Your task to perform on an android device: What's on my calendar today? Image 0: 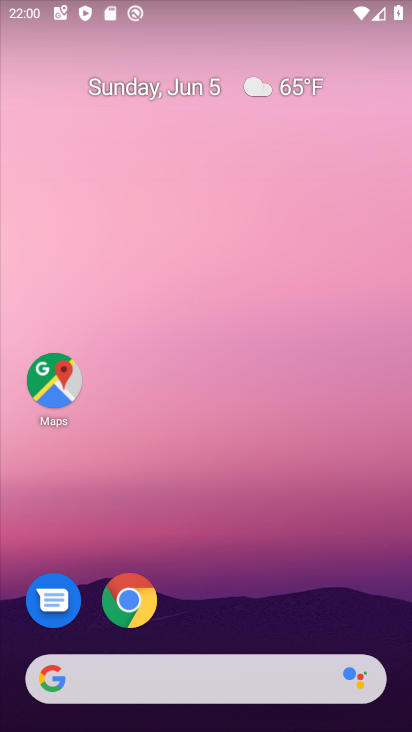
Step 0: drag from (302, 598) to (259, 161)
Your task to perform on an android device: What's on my calendar today? Image 1: 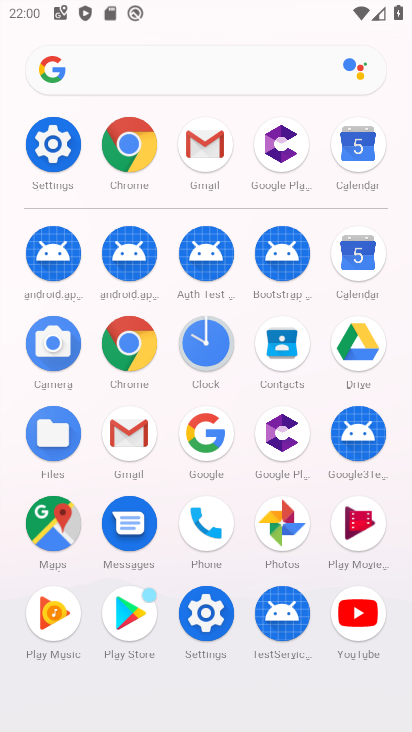
Step 1: click (368, 256)
Your task to perform on an android device: What's on my calendar today? Image 2: 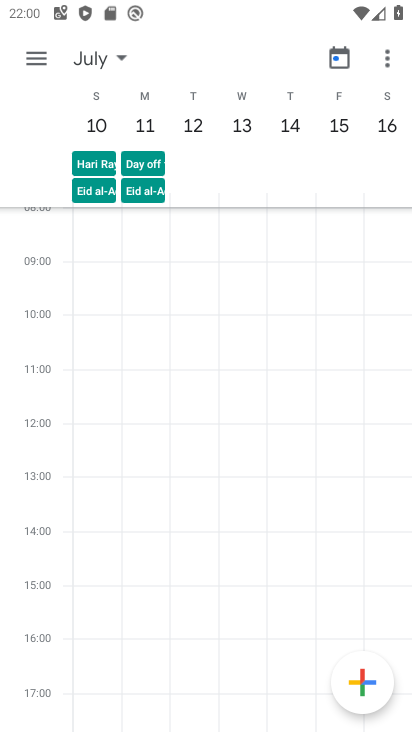
Step 2: click (85, 53)
Your task to perform on an android device: What's on my calendar today? Image 3: 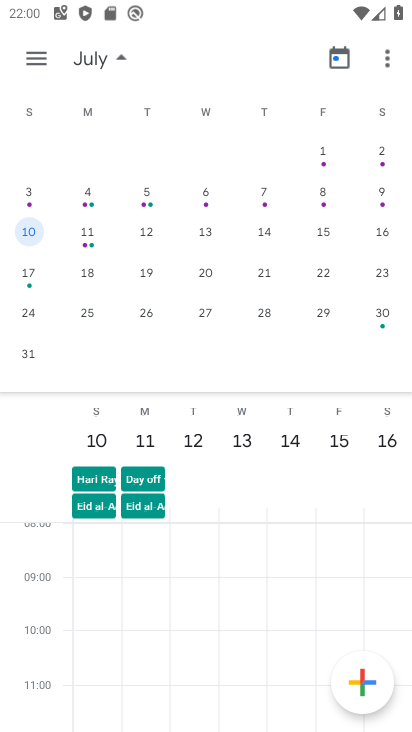
Step 3: click (22, 227)
Your task to perform on an android device: What's on my calendar today? Image 4: 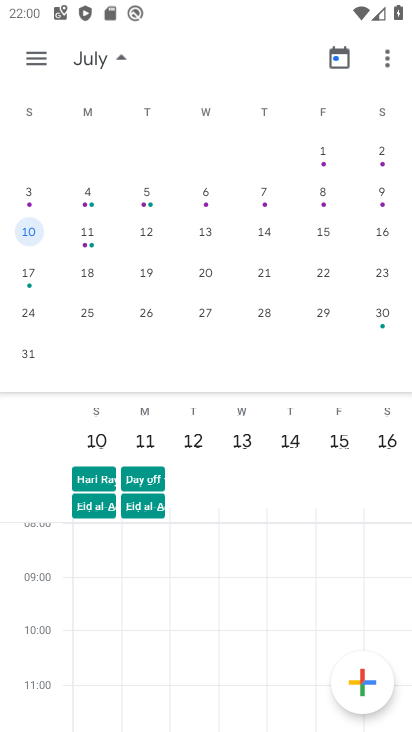
Step 4: drag from (111, 247) to (354, 244)
Your task to perform on an android device: What's on my calendar today? Image 5: 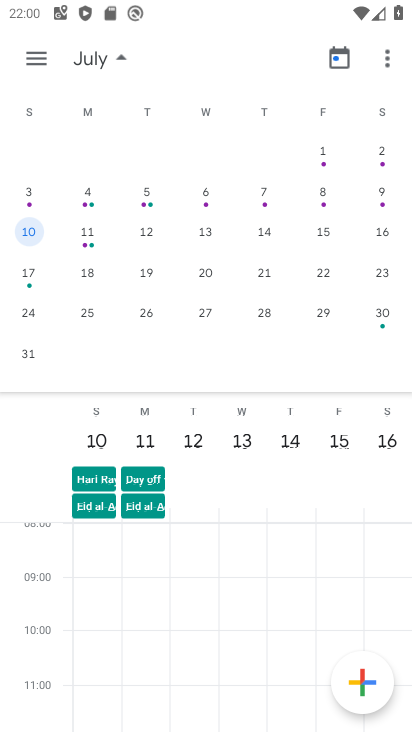
Step 5: drag from (116, 252) to (407, 292)
Your task to perform on an android device: What's on my calendar today? Image 6: 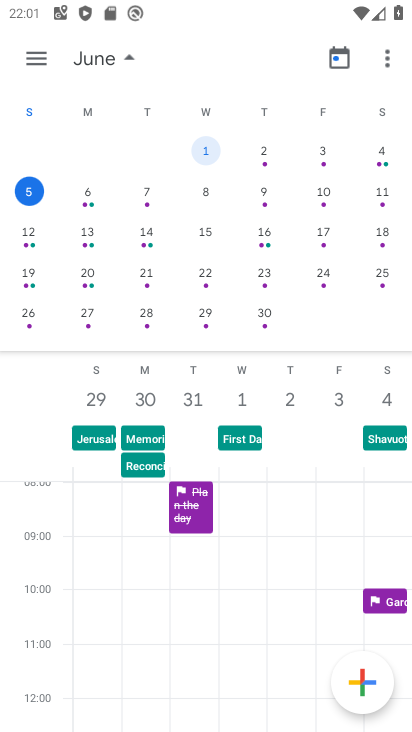
Step 6: click (31, 192)
Your task to perform on an android device: What's on my calendar today? Image 7: 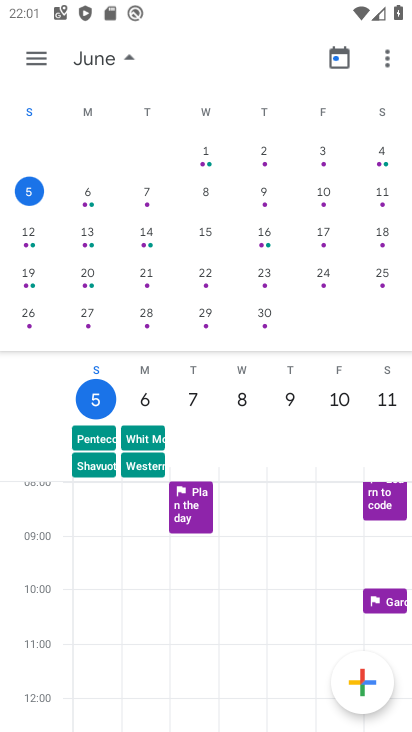
Step 7: drag from (212, 417) to (247, 144)
Your task to perform on an android device: What's on my calendar today? Image 8: 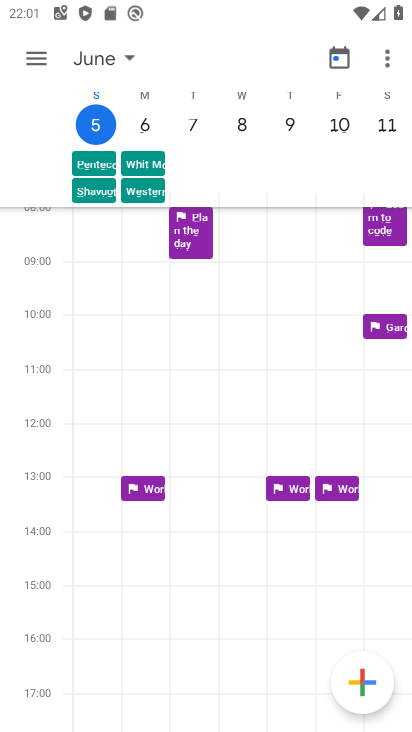
Step 8: click (46, 59)
Your task to perform on an android device: What's on my calendar today? Image 9: 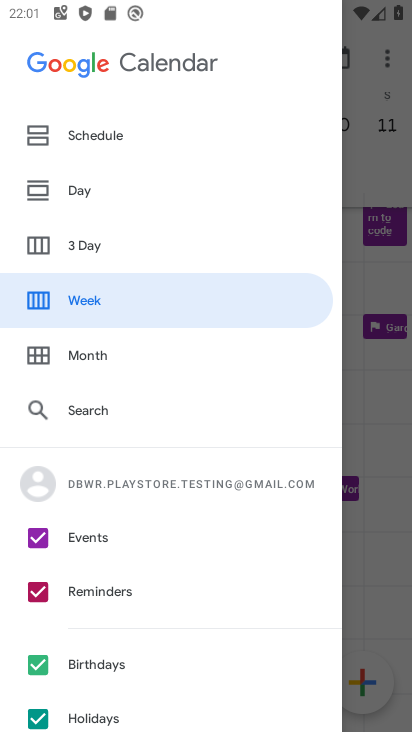
Step 9: click (73, 190)
Your task to perform on an android device: What's on my calendar today? Image 10: 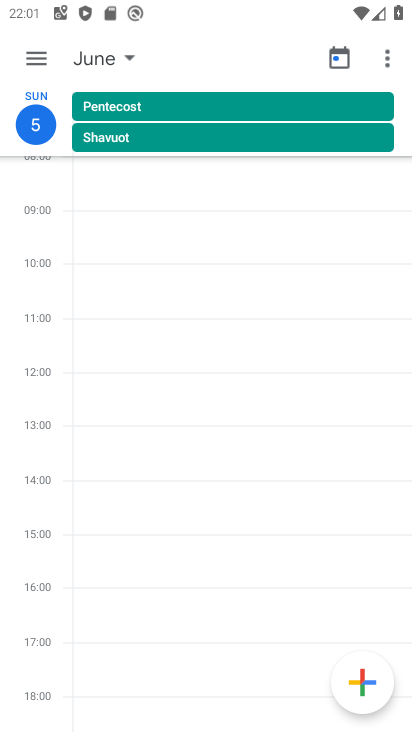
Step 10: task complete